Your task to perform on an android device: Do I have any events this weekend? Image 0: 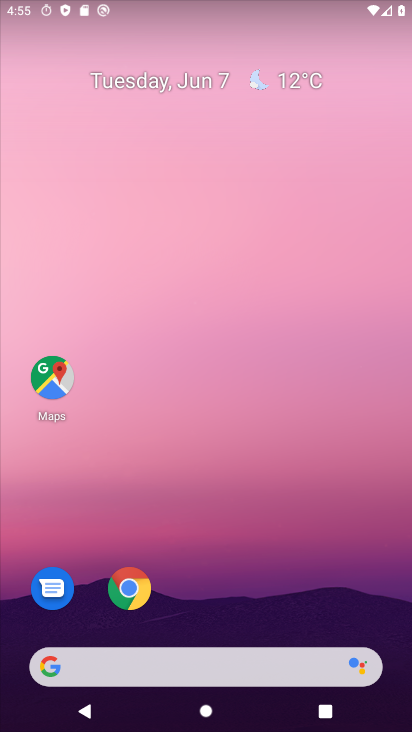
Step 0: drag from (222, 609) to (243, 232)
Your task to perform on an android device: Do I have any events this weekend? Image 1: 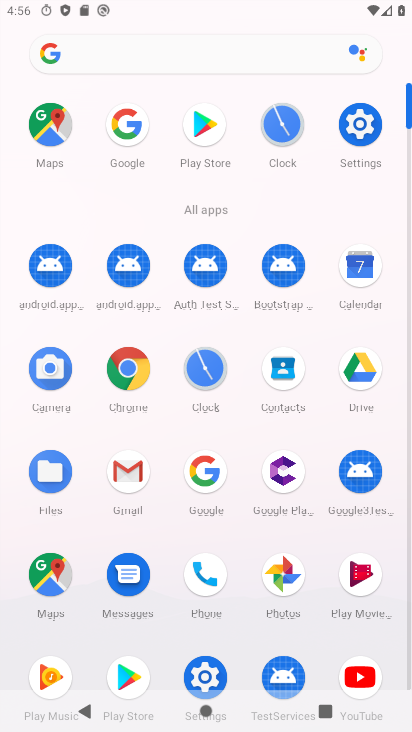
Step 1: click (366, 279)
Your task to perform on an android device: Do I have any events this weekend? Image 2: 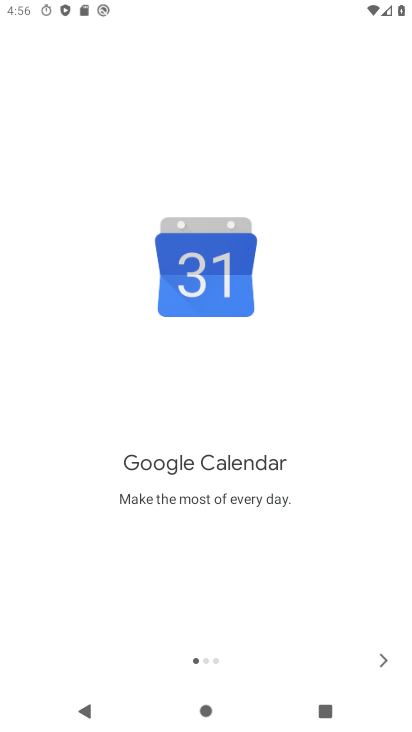
Step 2: click (382, 666)
Your task to perform on an android device: Do I have any events this weekend? Image 3: 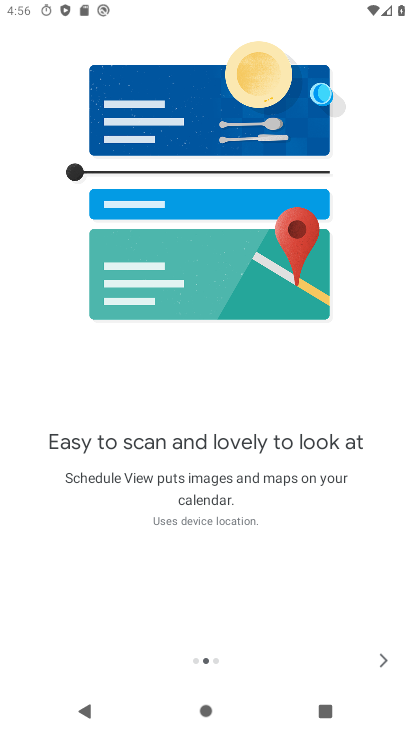
Step 3: click (380, 664)
Your task to perform on an android device: Do I have any events this weekend? Image 4: 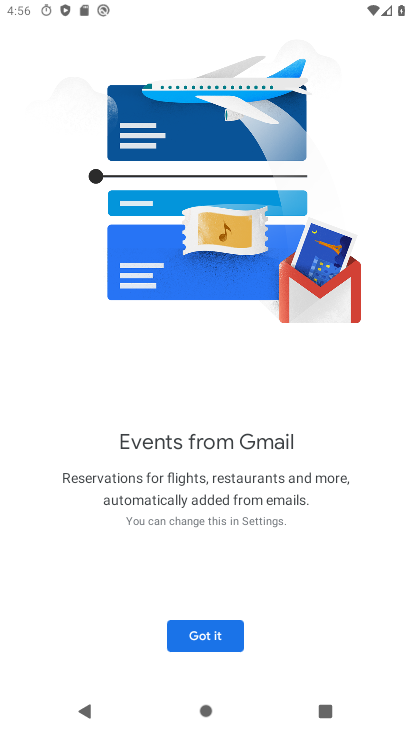
Step 4: click (227, 645)
Your task to perform on an android device: Do I have any events this weekend? Image 5: 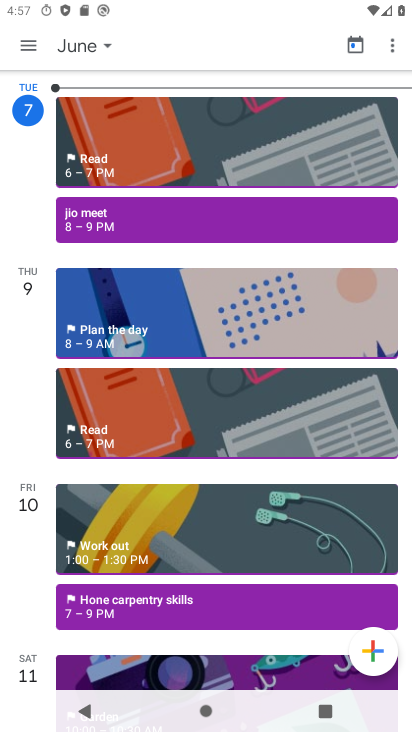
Step 5: click (82, 53)
Your task to perform on an android device: Do I have any events this weekend? Image 6: 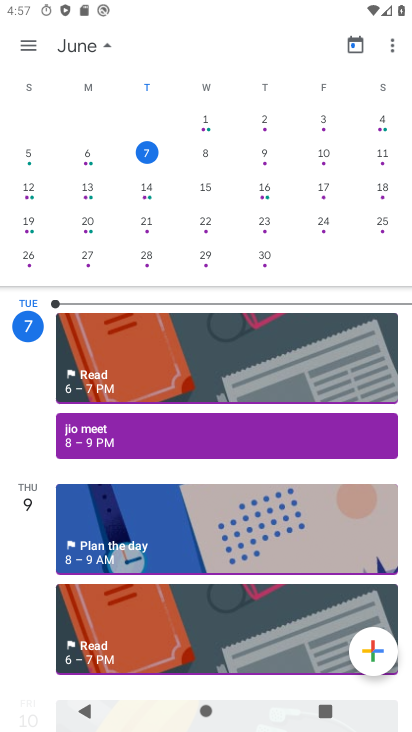
Step 6: click (19, 57)
Your task to perform on an android device: Do I have any events this weekend? Image 7: 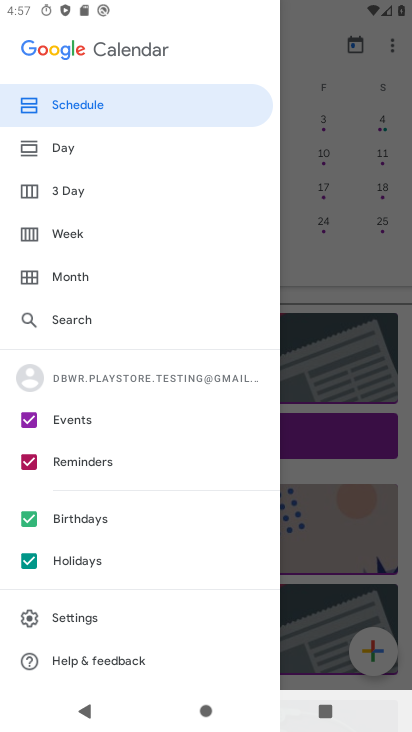
Step 7: click (62, 239)
Your task to perform on an android device: Do I have any events this weekend? Image 8: 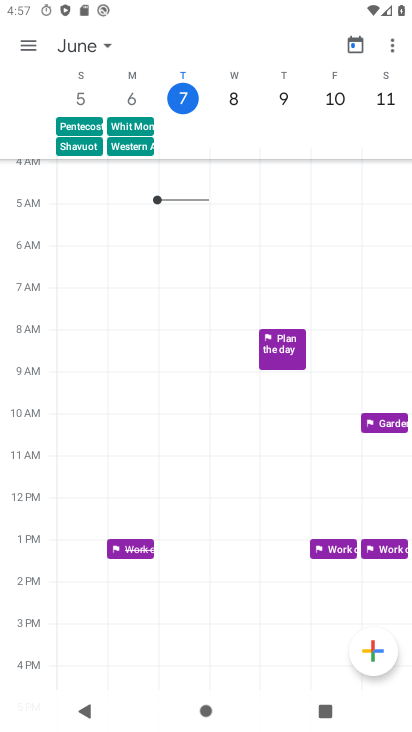
Step 8: task complete